Your task to perform on an android device: open device folders in google photos Image 0: 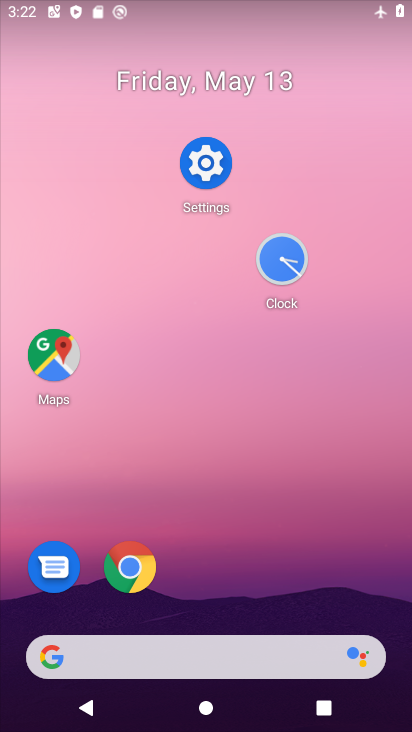
Step 0: drag from (262, 566) to (246, 309)
Your task to perform on an android device: open device folders in google photos Image 1: 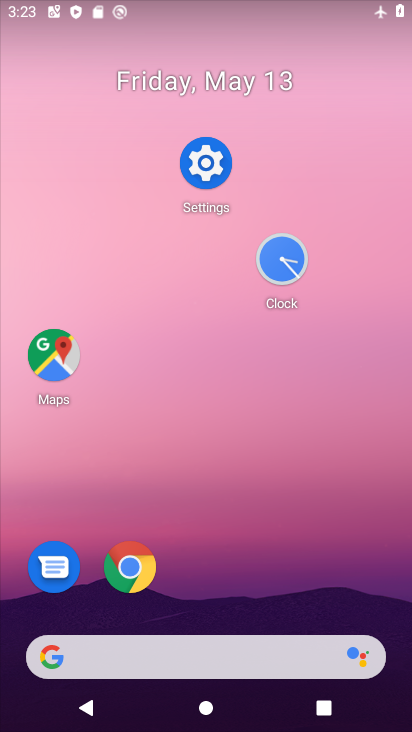
Step 1: drag from (261, 573) to (242, 86)
Your task to perform on an android device: open device folders in google photos Image 2: 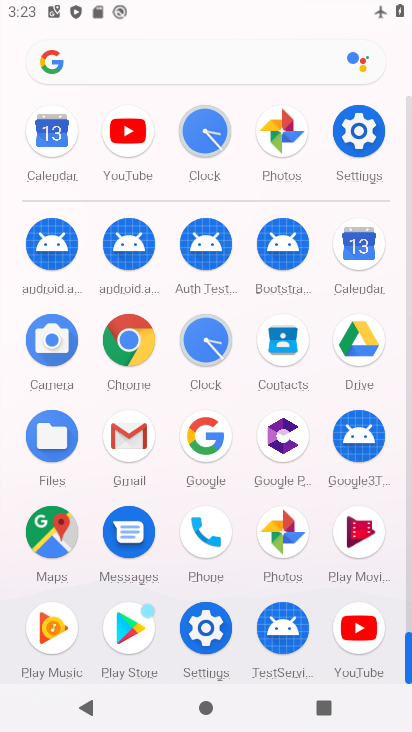
Step 2: click (272, 577)
Your task to perform on an android device: open device folders in google photos Image 3: 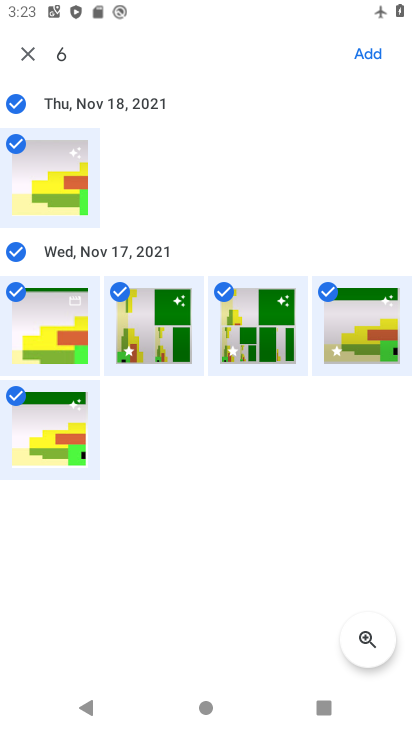
Step 3: click (386, 66)
Your task to perform on an android device: open device folders in google photos Image 4: 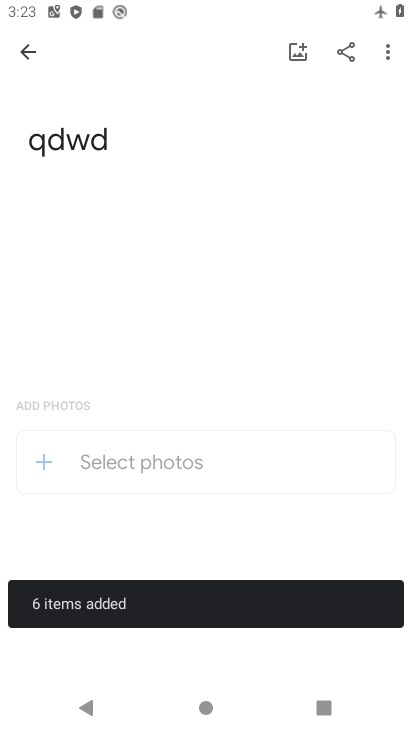
Step 4: click (17, 40)
Your task to perform on an android device: open device folders in google photos Image 5: 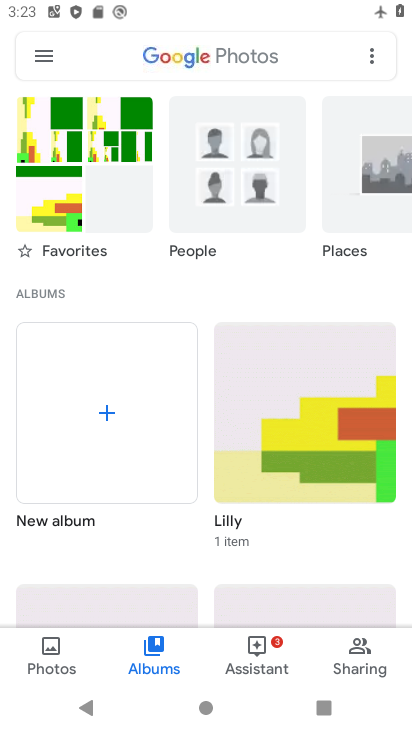
Step 5: click (17, 40)
Your task to perform on an android device: open device folders in google photos Image 6: 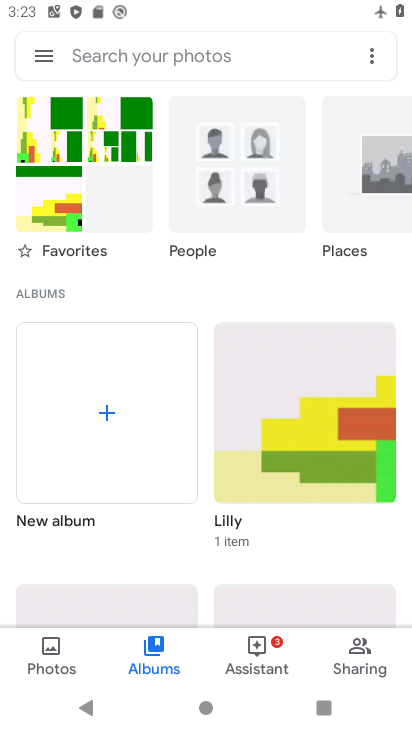
Step 6: click (44, 51)
Your task to perform on an android device: open device folders in google photos Image 7: 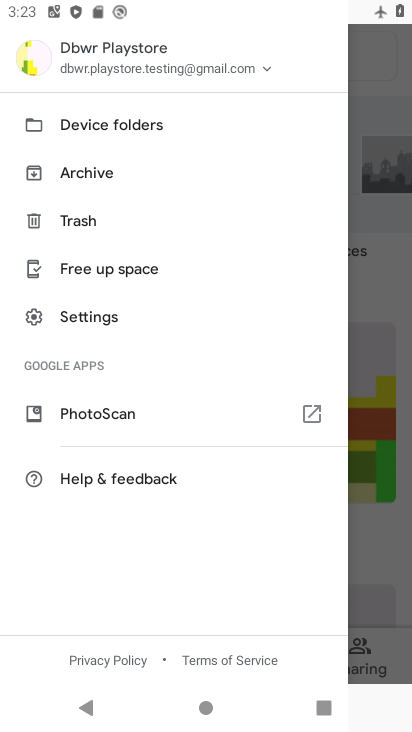
Step 7: click (125, 129)
Your task to perform on an android device: open device folders in google photos Image 8: 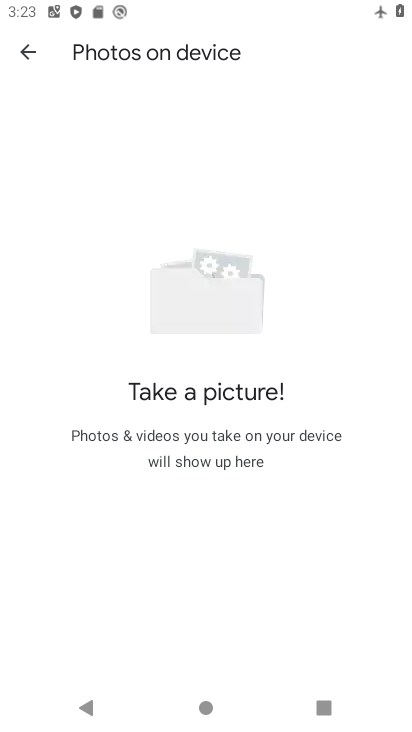
Step 8: task complete